Your task to perform on an android device: Open ESPN.com Image 0: 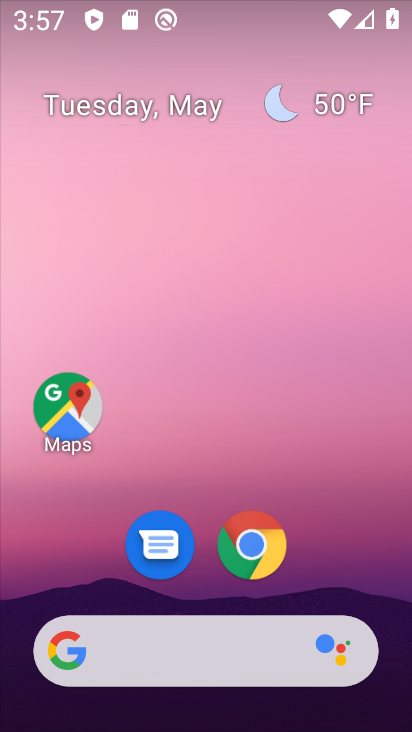
Step 0: click (259, 535)
Your task to perform on an android device: Open ESPN.com Image 1: 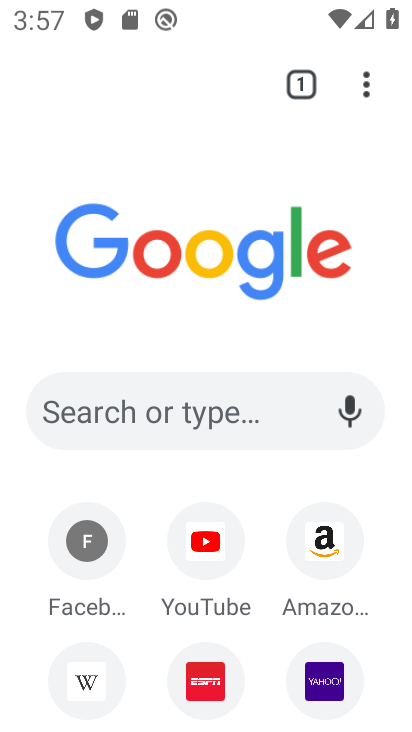
Step 1: click (205, 418)
Your task to perform on an android device: Open ESPN.com Image 2: 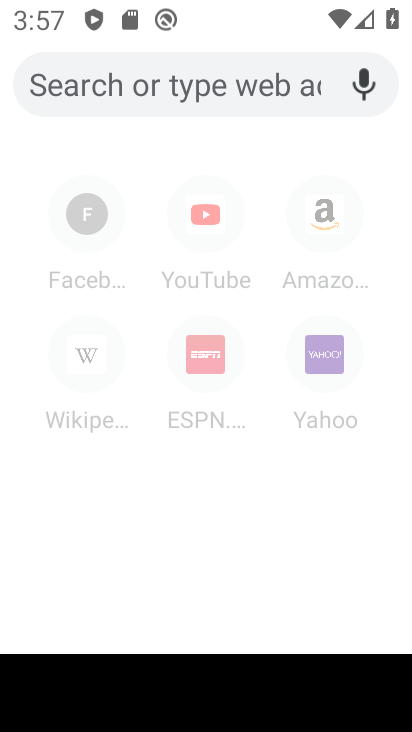
Step 2: type "ESPN.com"
Your task to perform on an android device: Open ESPN.com Image 3: 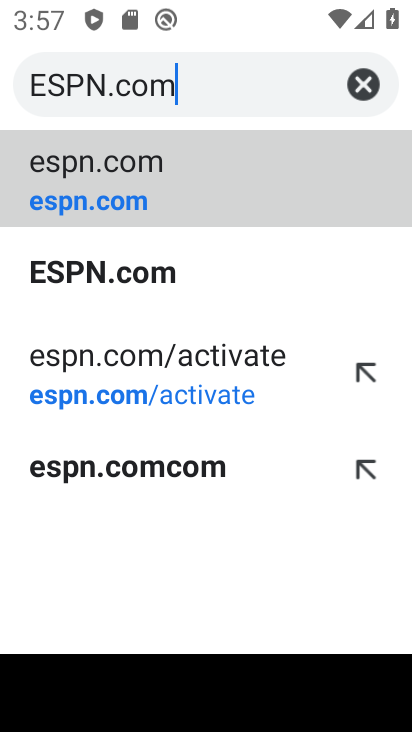
Step 3: click (147, 199)
Your task to perform on an android device: Open ESPN.com Image 4: 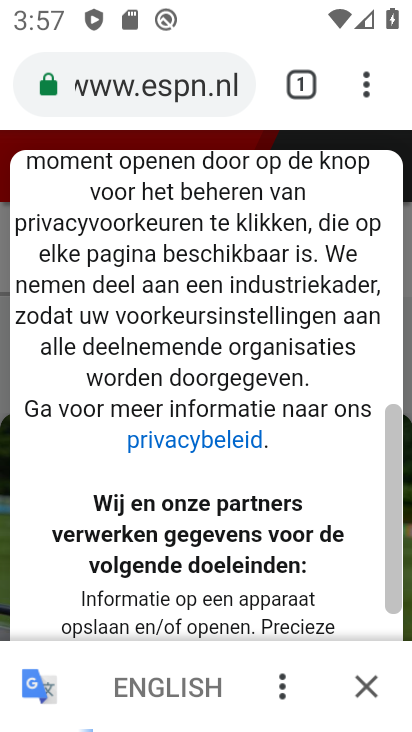
Step 4: task complete